Your task to perform on an android device: open app "Facebook Messenger" Image 0: 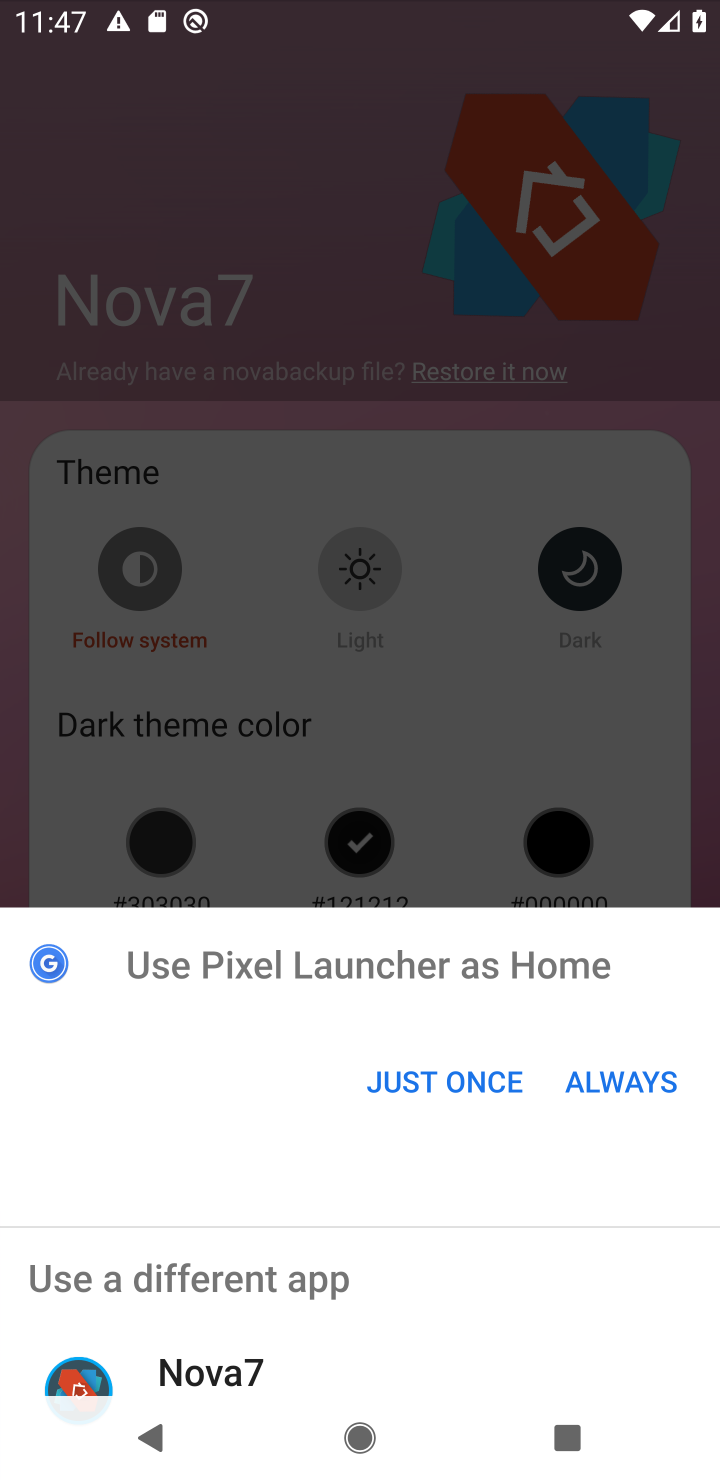
Step 0: press home button
Your task to perform on an android device: open app "Facebook Messenger" Image 1: 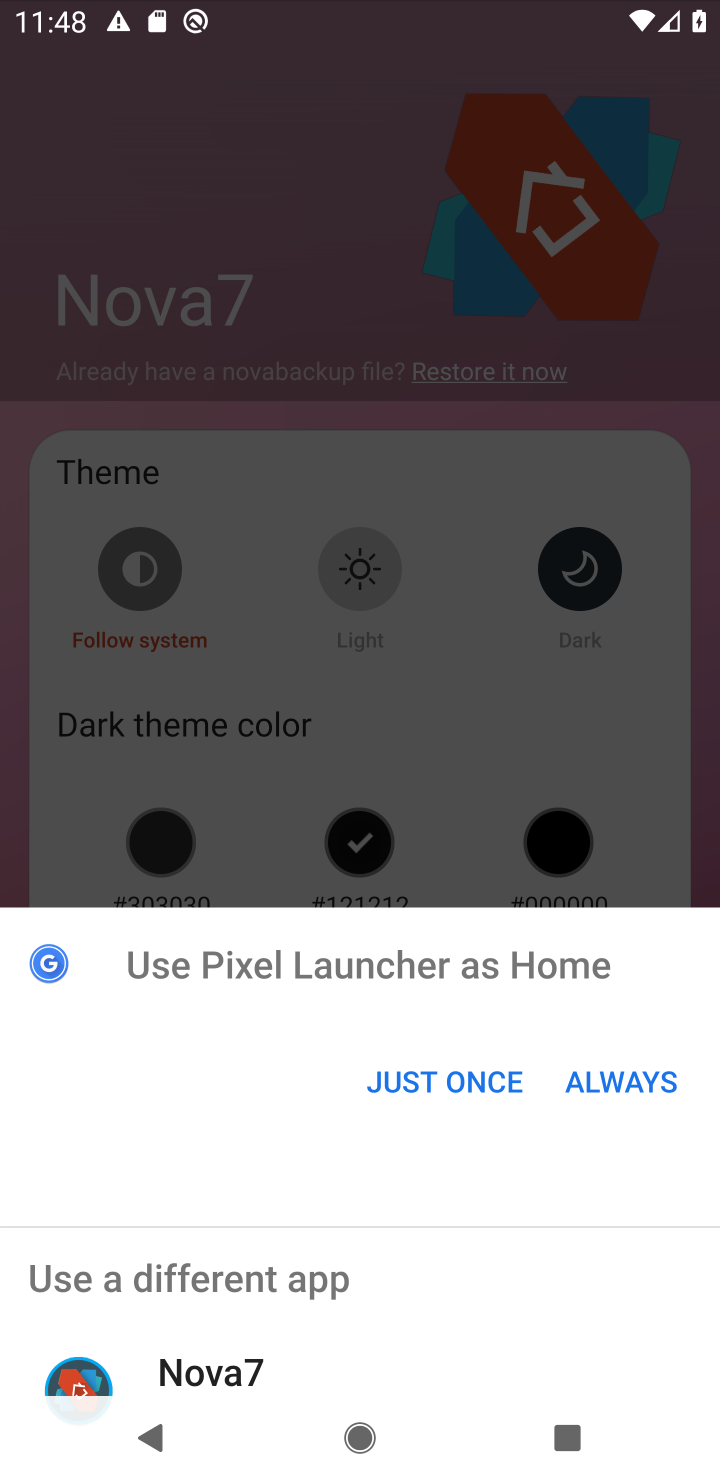
Step 1: press home button
Your task to perform on an android device: open app "Facebook Messenger" Image 2: 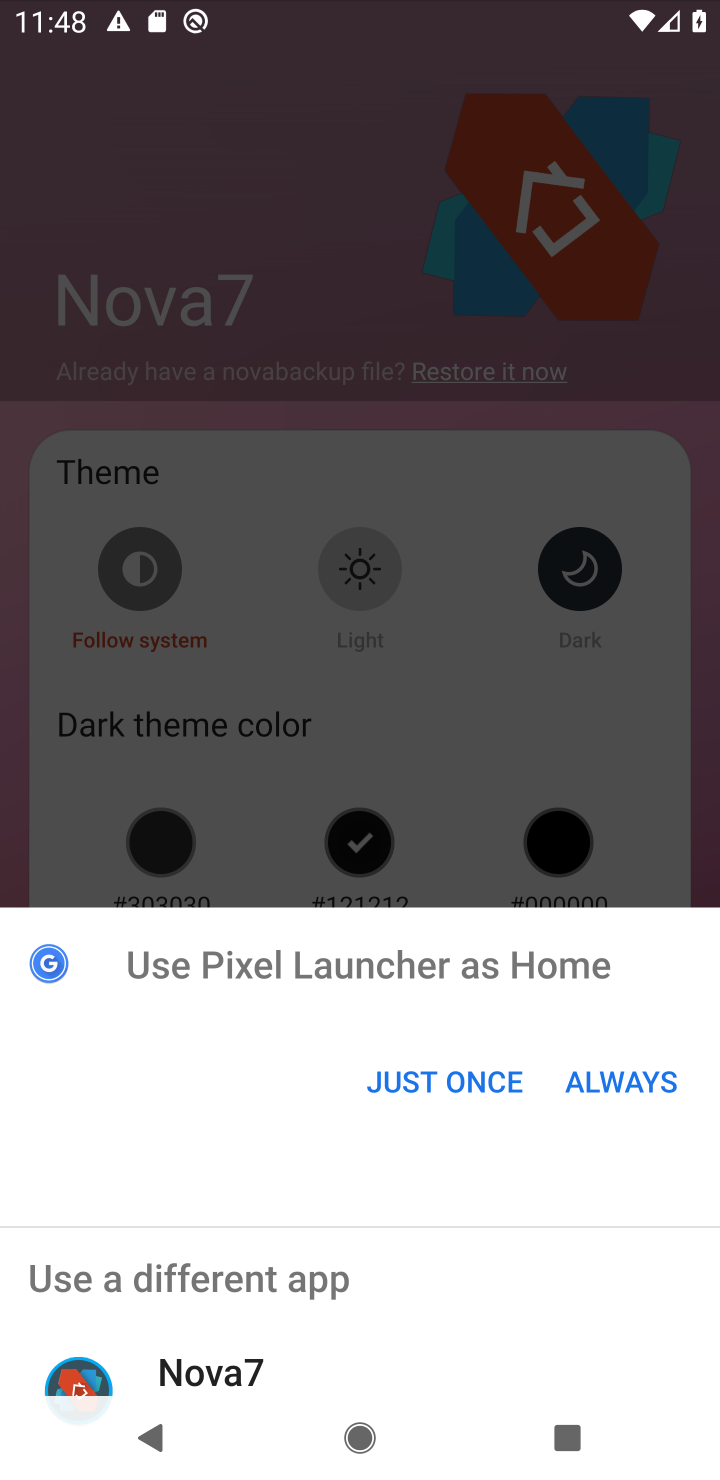
Step 2: click (401, 1091)
Your task to perform on an android device: open app "Facebook Messenger" Image 3: 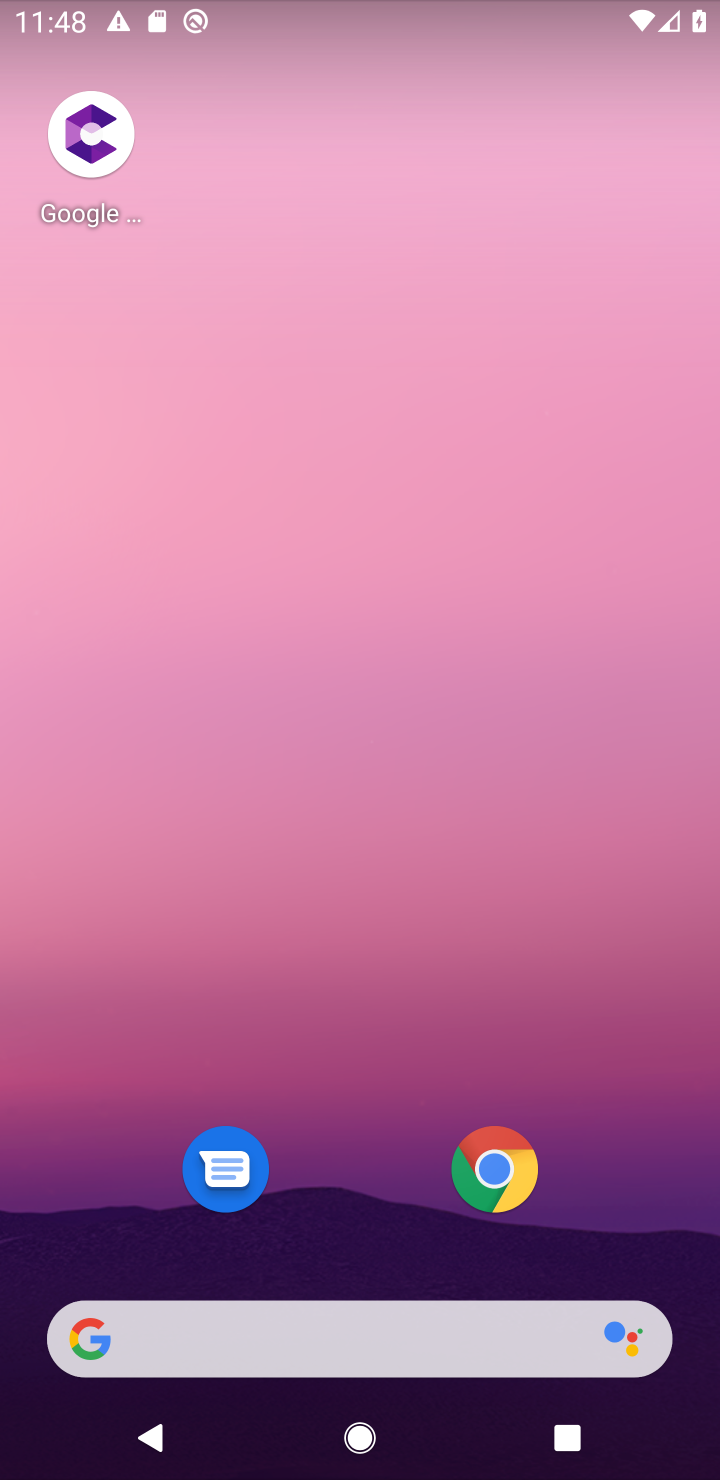
Step 3: drag from (391, 1255) to (405, 33)
Your task to perform on an android device: open app "Facebook Messenger" Image 4: 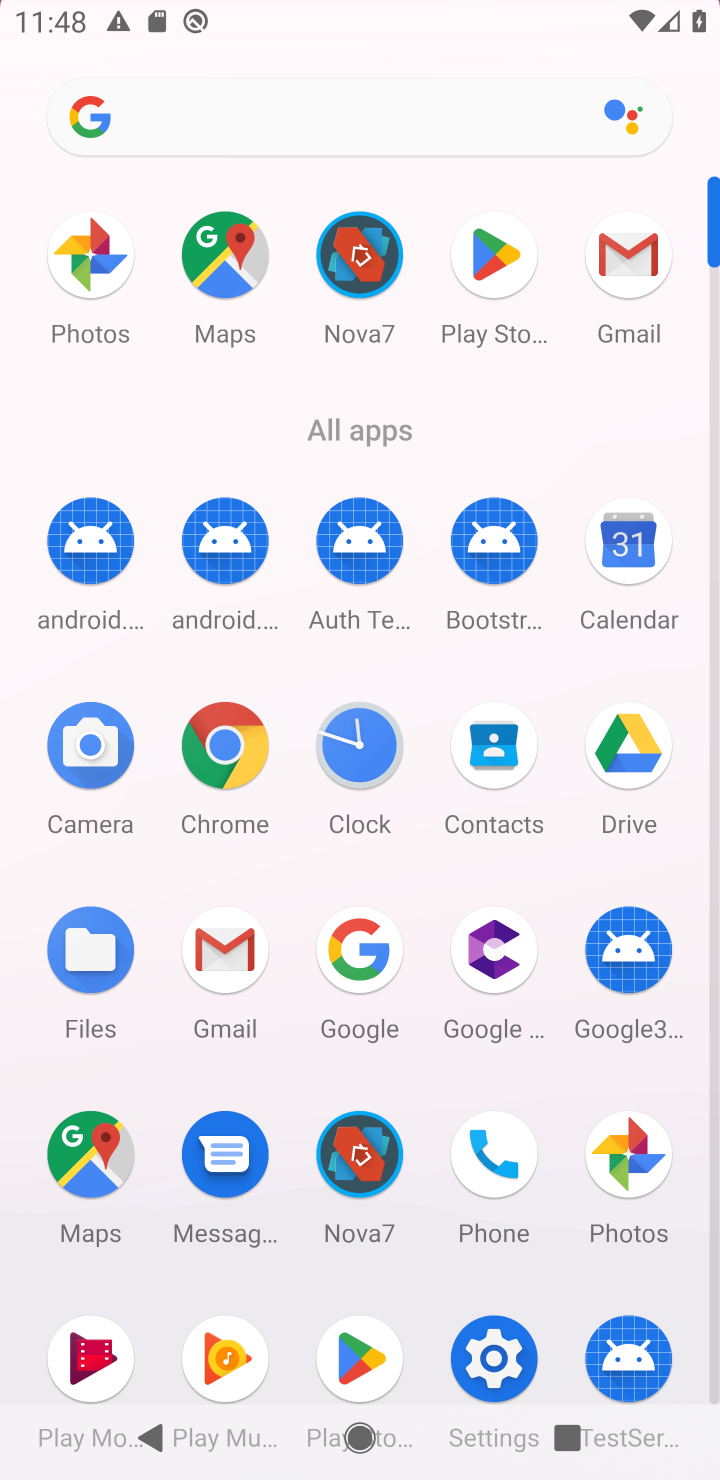
Step 4: click (490, 253)
Your task to perform on an android device: open app "Facebook Messenger" Image 5: 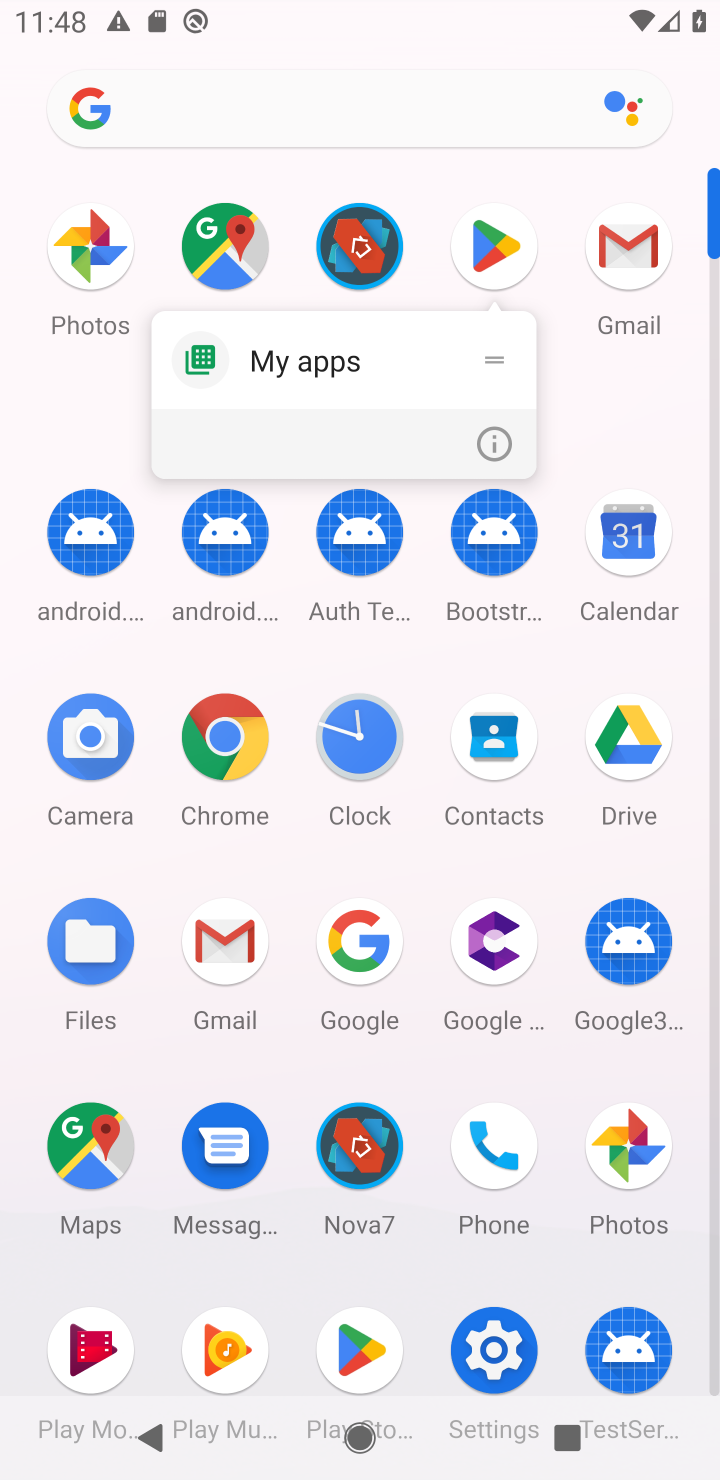
Step 5: click (504, 257)
Your task to perform on an android device: open app "Facebook Messenger" Image 6: 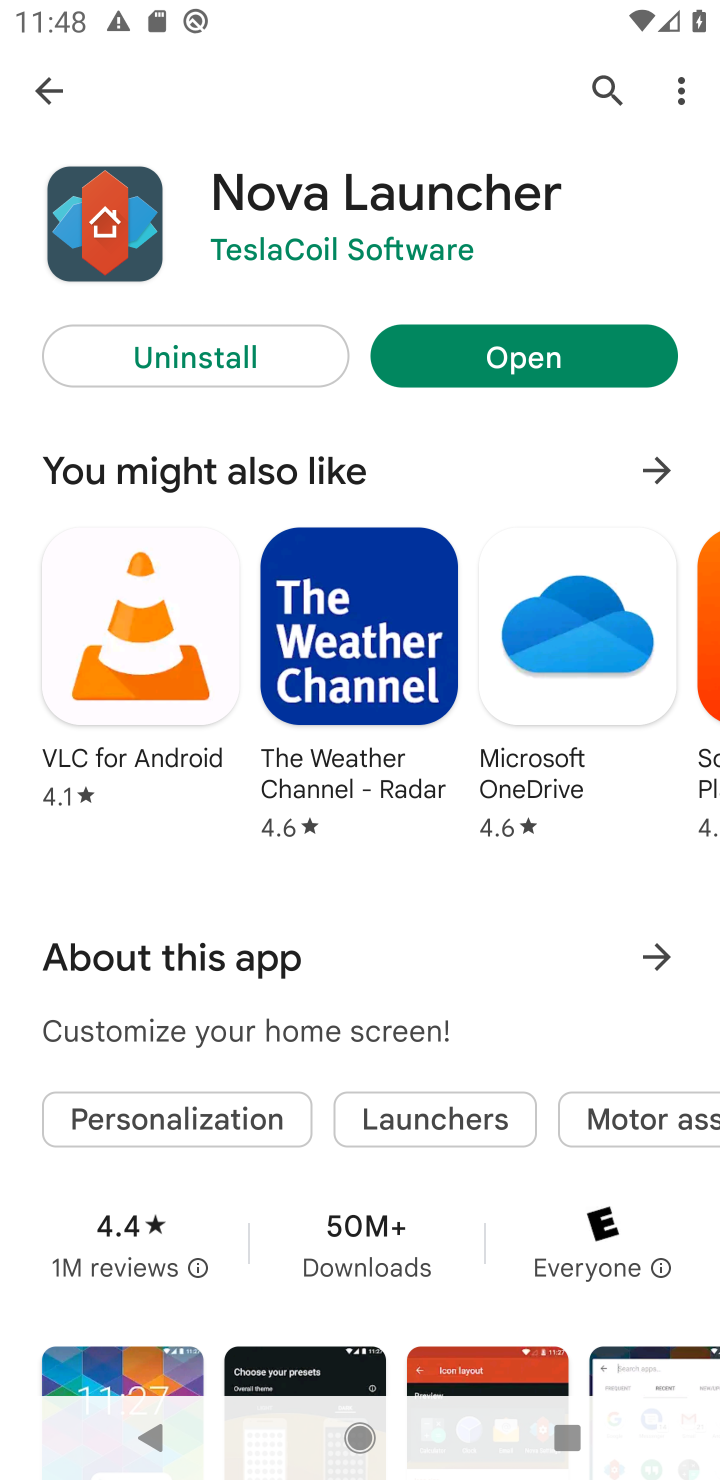
Step 6: click (104, 64)
Your task to perform on an android device: open app "Facebook Messenger" Image 7: 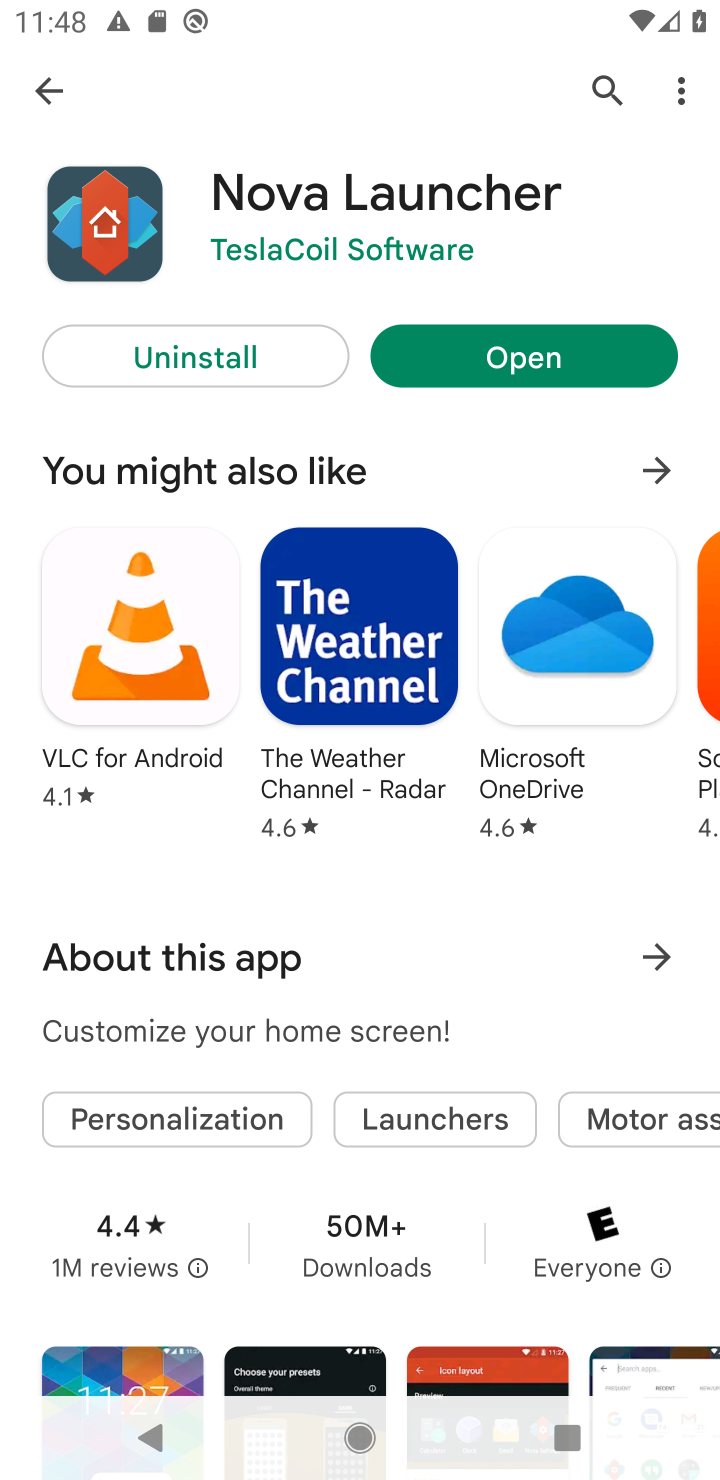
Step 7: click (59, 80)
Your task to perform on an android device: open app "Facebook Messenger" Image 8: 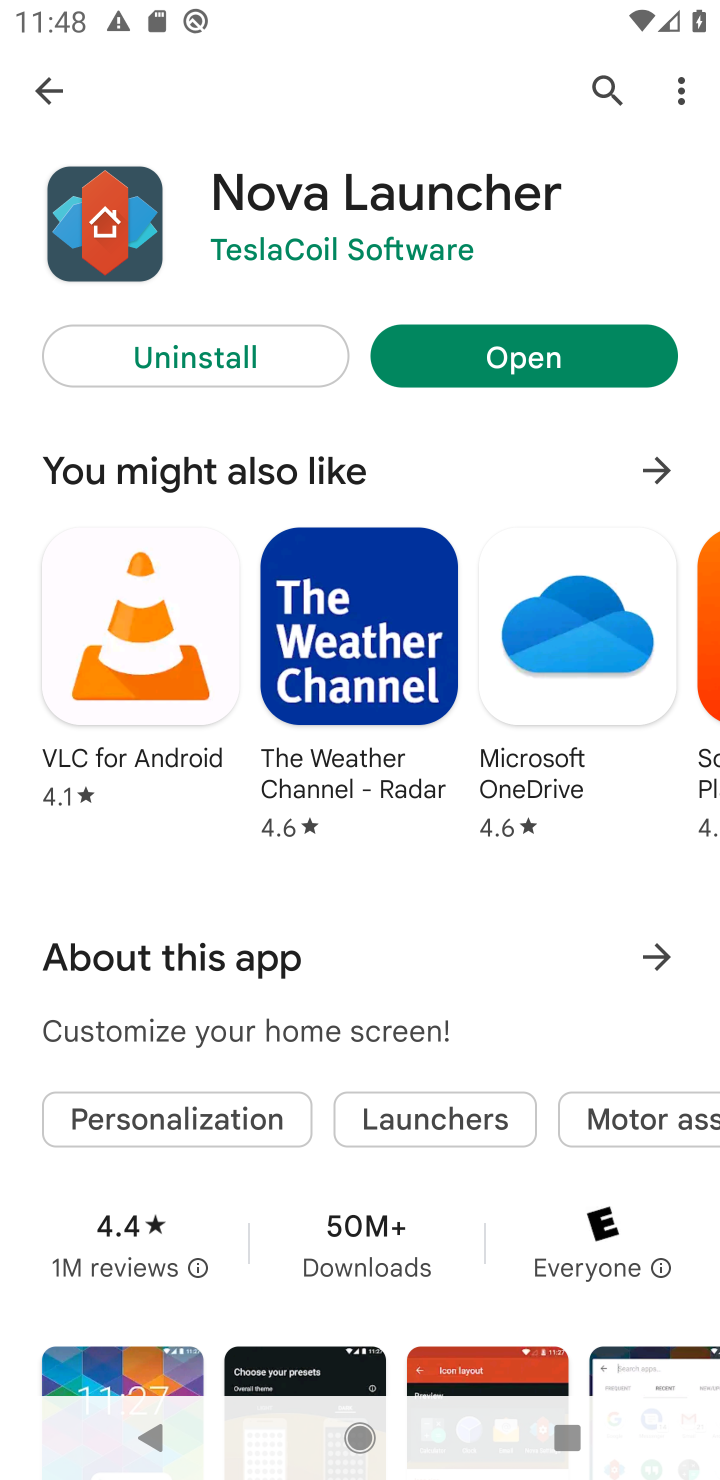
Step 8: click (54, 92)
Your task to perform on an android device: open app "Facebook Messenger" Image 9: 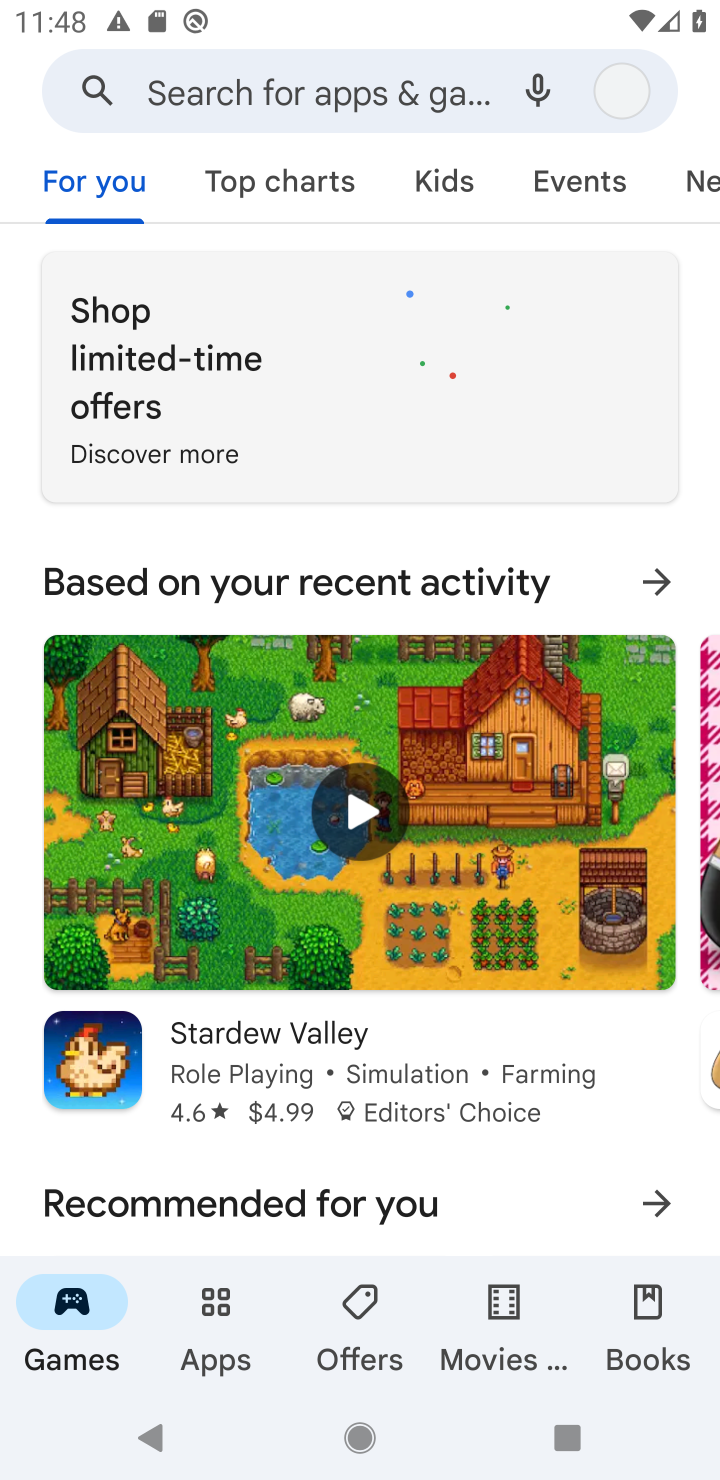
Step 9: click (334, 72)
Your task to perform on an android device: open app "Facebook Messenger" Image 10: 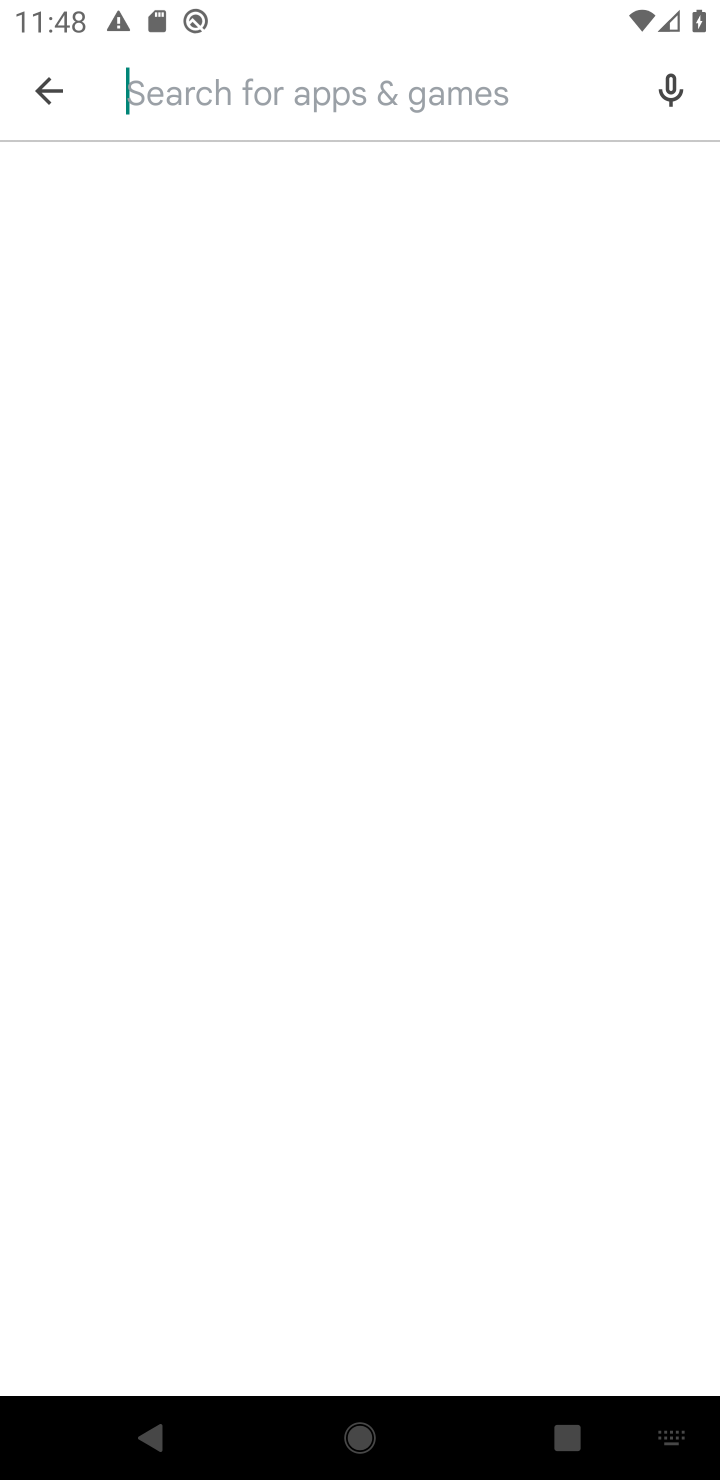
Step 10: type "Facebook Messenger"
Your task to perform on an android device: open app "Facebook Messenger" Image 11: 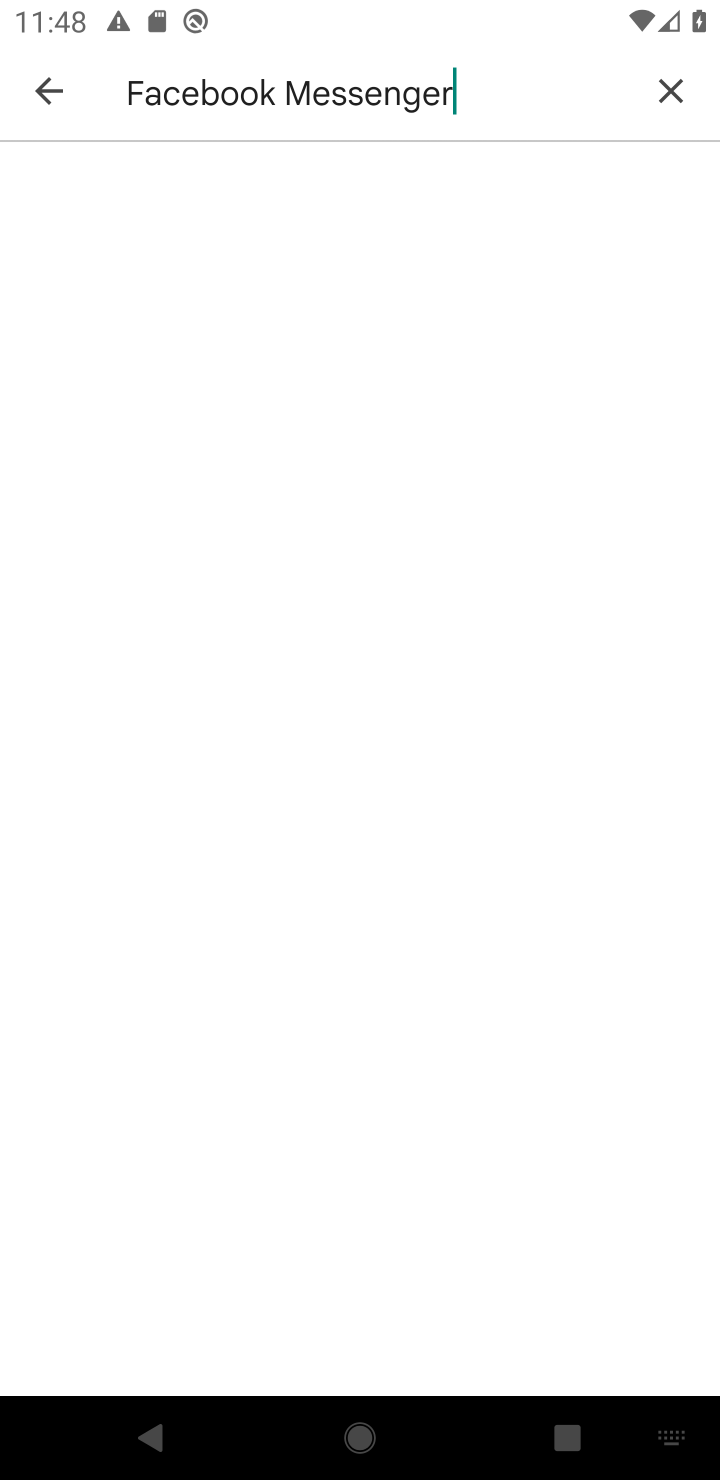
Step 11: type ""
Your task to perform on an android device: open app "Facebook Messenger" Image 12: 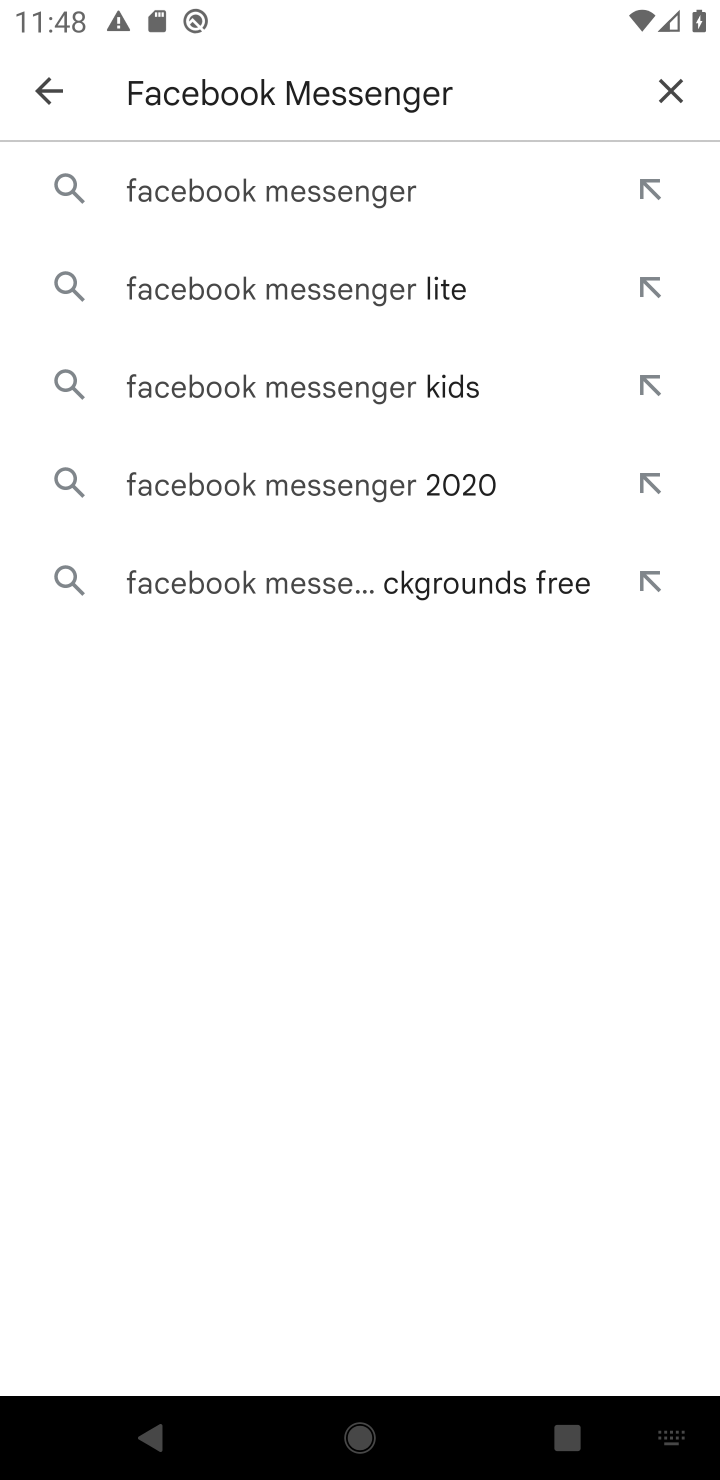
Step 12: click (328, 168)
Your task to perform on an android device: open app "Facebook Messenger" Image 13: 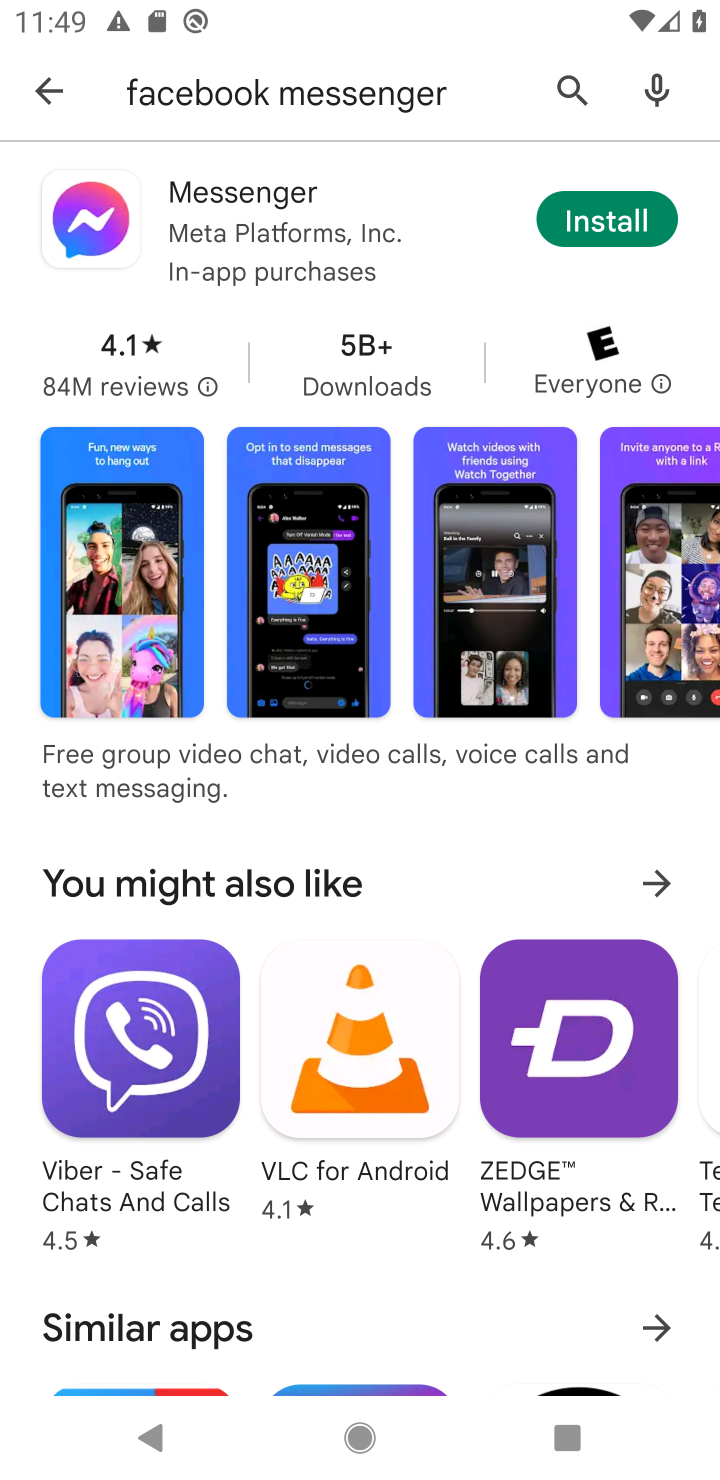
Step 13: task complete